Your task to perform on an android device: Open display settings Image 0: 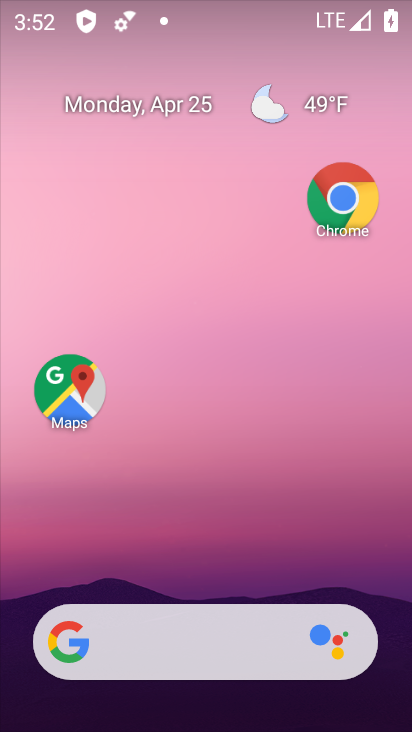
Step 0: drag from (145, 639) to (308, 222)
Your task to perform on an android device: Open display settings Image 1: 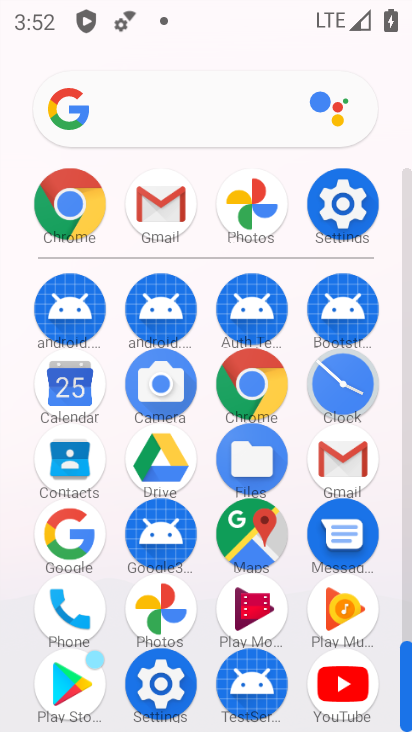
Step 1: click (347, 211)
Your task to perform on an android device: Open display settings Image 2: 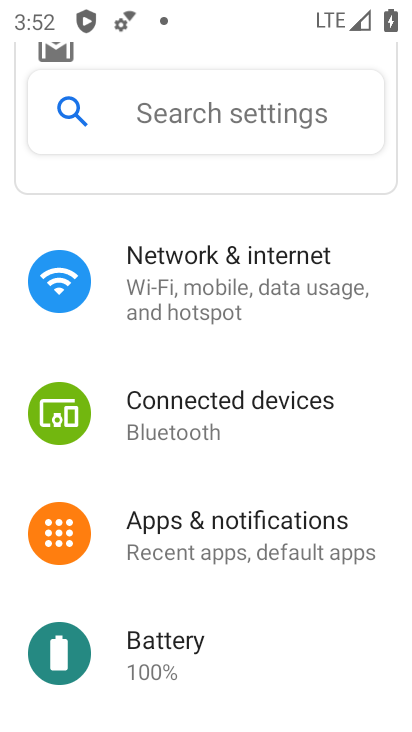
Step 2: drag from (191, 621) to (330, 218)
Your task to perform on an android device: Open display settings Image 3: 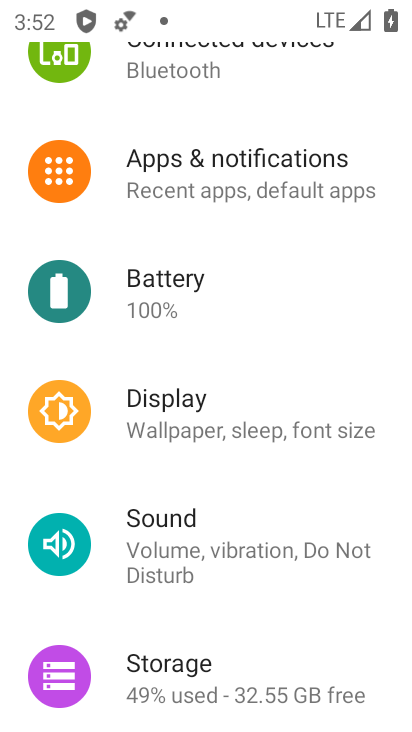
Step 3: click (173, 422)
Your task to perform on an android device: Open display settings Image 4: 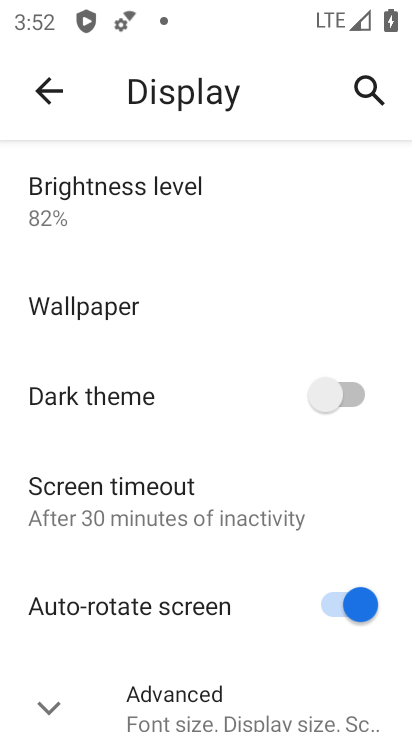
Step 4: task complete